Your task to perform on an android device: Open the web browser Image 0: 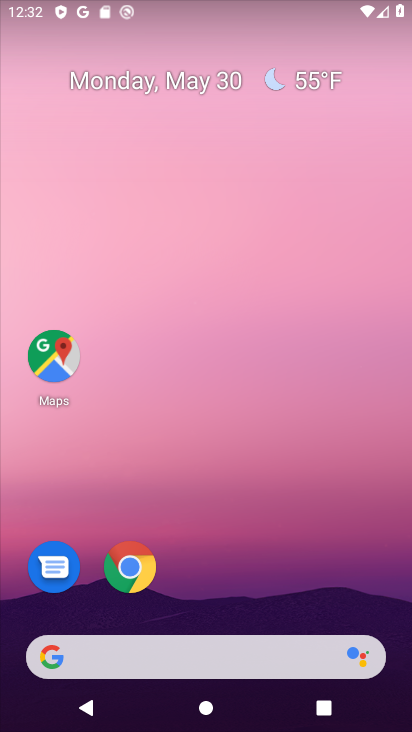
Step 0: press home button
Your task to perform on an android device: Open the web browser Image 1: 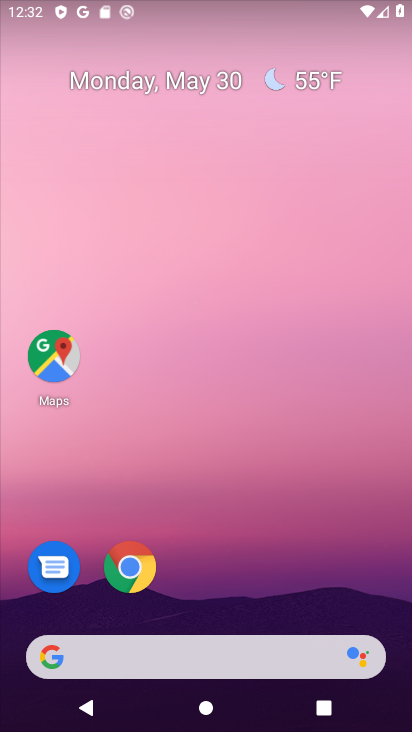
Step 1: click (159, 579)
Your task to perform on an android device: Open the web browser Image 2: 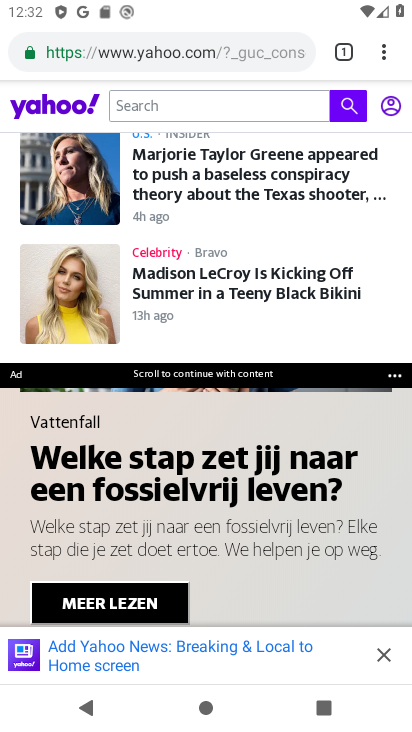
Step 2: click (345, 45)
Your task to perform on an android device: Open the web browser Image 3: 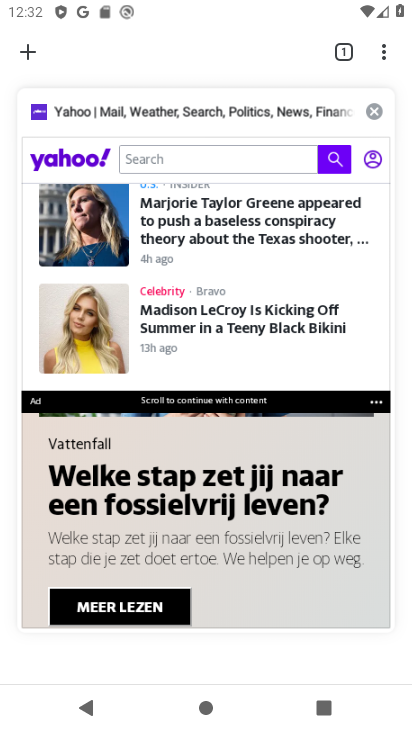
Step 3: click (370, 113)
Your task to perform on an android device: Open the web browser Image 4: 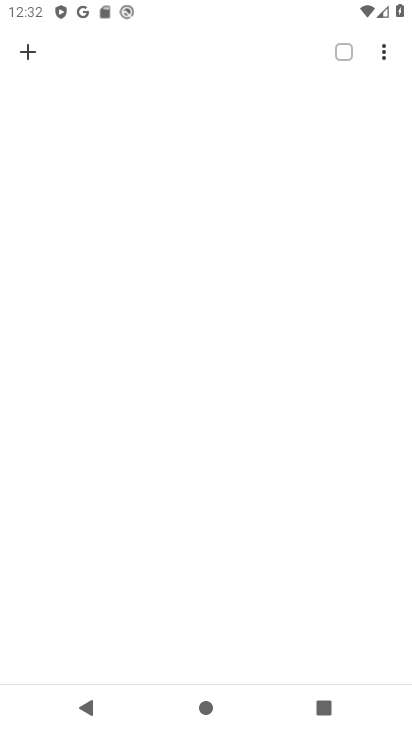
Step 4: click (26, 41)
Your task to perform on an android device: Open the web browser Image 5: 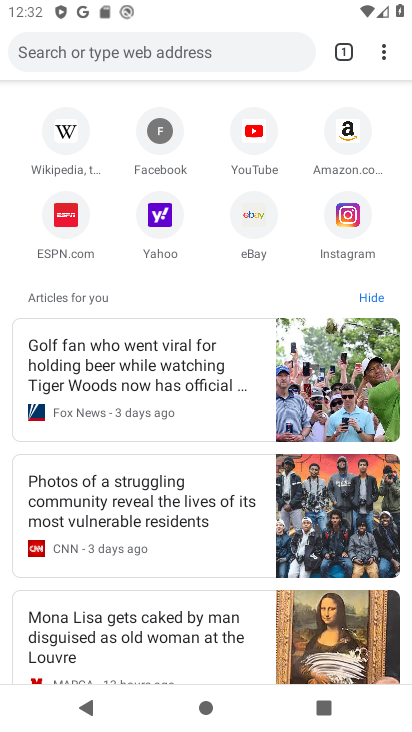
Step 5: task complete